Your task to perform on an android device: open the mobile data screen to see how much data has been used Image 0: 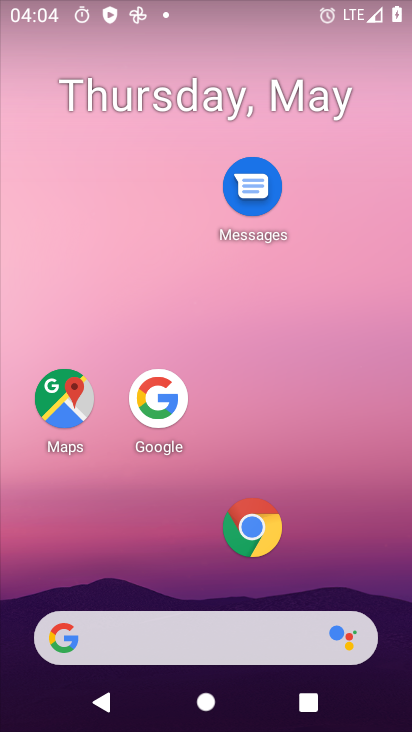
Step 0: drag from (227, 541) to (259, 78)
Your task to perform on an android device: open the mobile data screen to see how much data has been used Image 1: 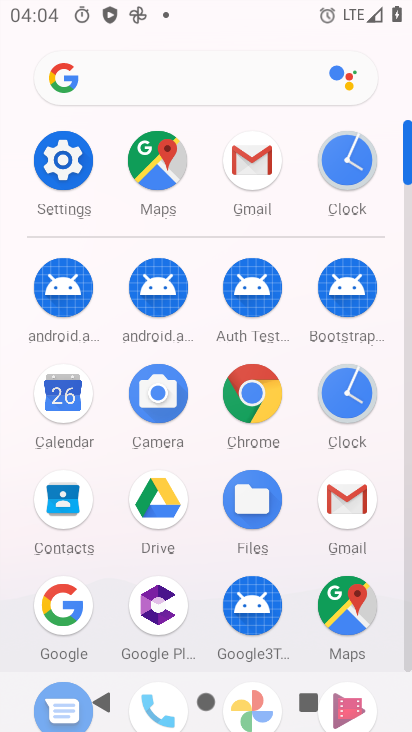
Step 1: click (73, 179)
Your task to perform on an android device: open the mobile data screen to see how much data has been used Image 2: 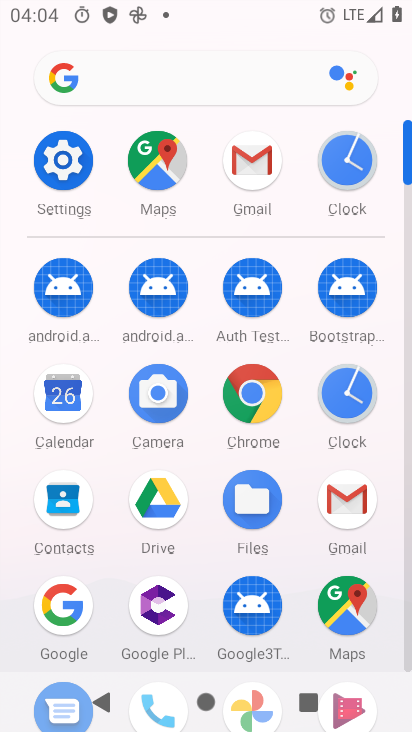
Step 2: click (73, 179)
Your task to perform on an android device: open the mobile data screen to see how much data has been used Image 3: 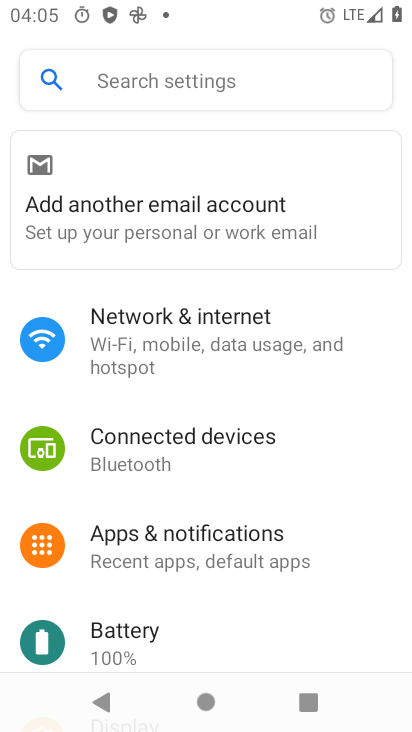
Step 3: click (212, 344)
Your task to perform on an android device: open the mobile data screen to see how much data has been used Image 4: 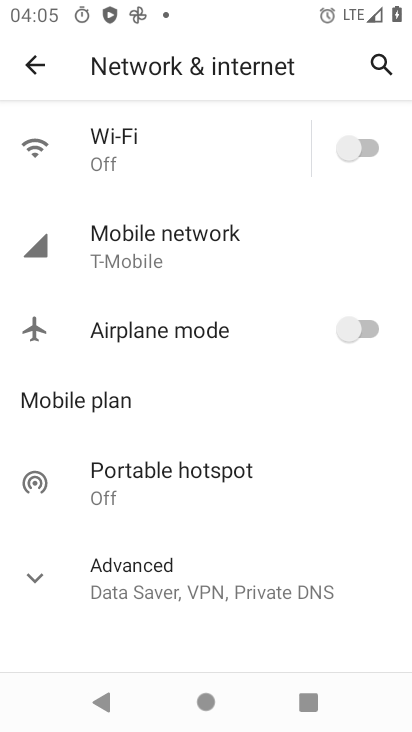
Step 4: click (215, 244)
Your task to perform on an android device: open the mobile data screen to see how much data has been used Image 5: 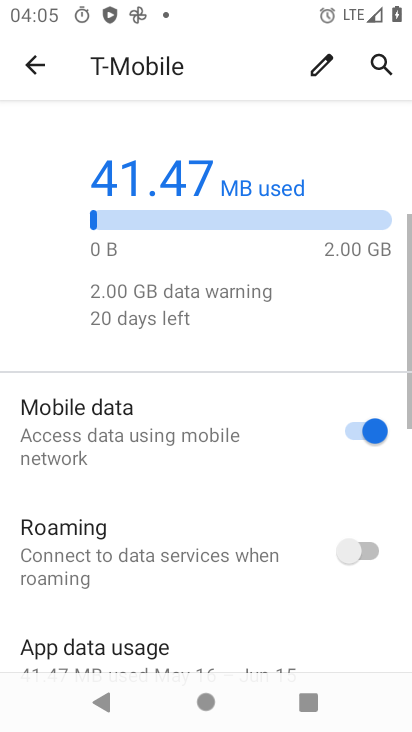
Step 5: task complete